Your task to perform on an android device: turn off data saver in the chrome app Image 0: 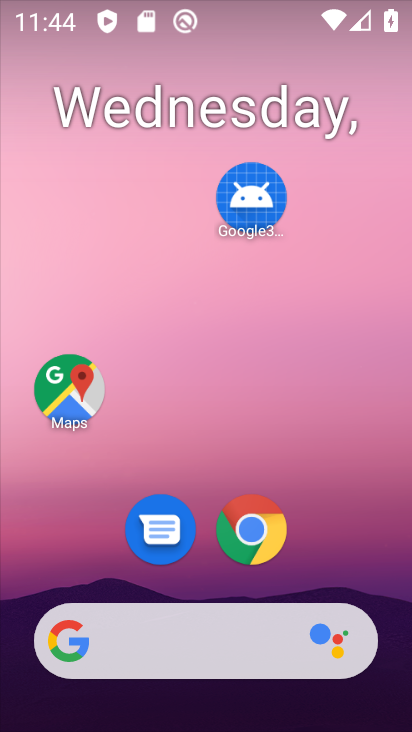
Step 0: click (236, 526)
Your task to perform on an android device: turn off data saver in the chrome app Image 1: 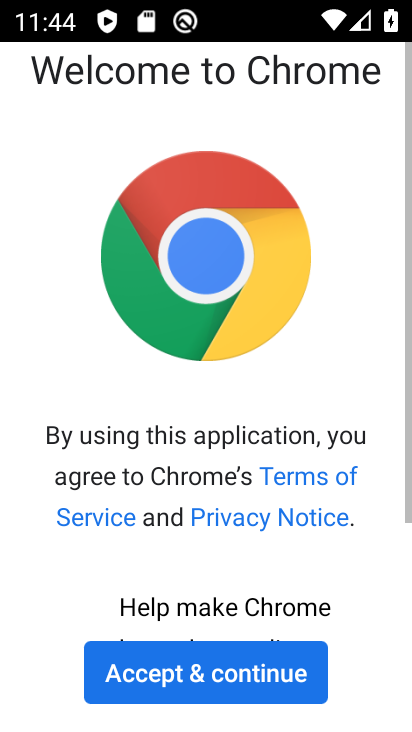
Step 1: click (263, 683)
Your task to perform on an android device: turn off data saver in the chrome app Image 2: 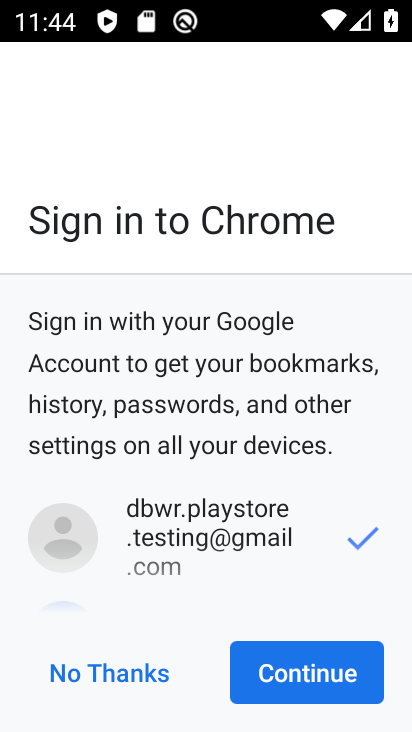
Step 2: click (297, 695)
Your task to perform on an android device: turn off data saver in the chrome app Image 3: 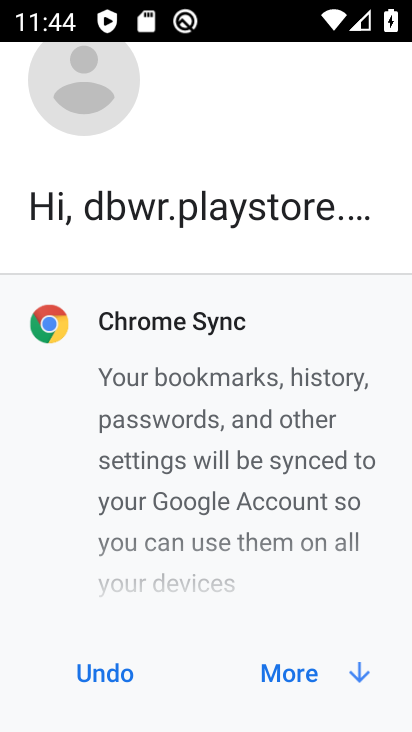
Step 3: click (294, 690)
Your task to perform on an android device: turn off data saver in the chrome app Image 4: 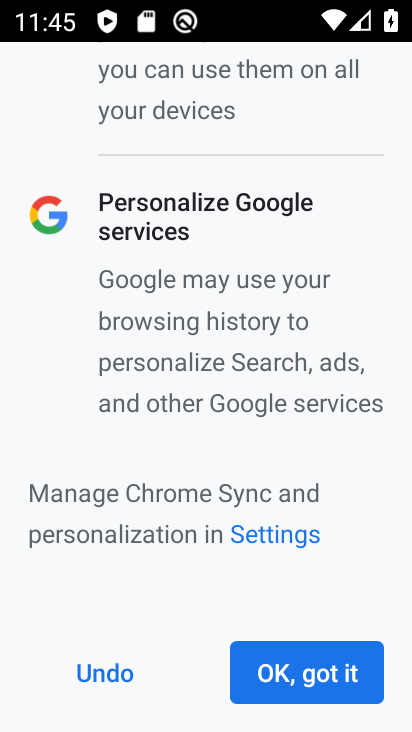
Step 4: click (310, 669)
Your task to perform on an android device: turn off data saver in the chrome app Image 5: 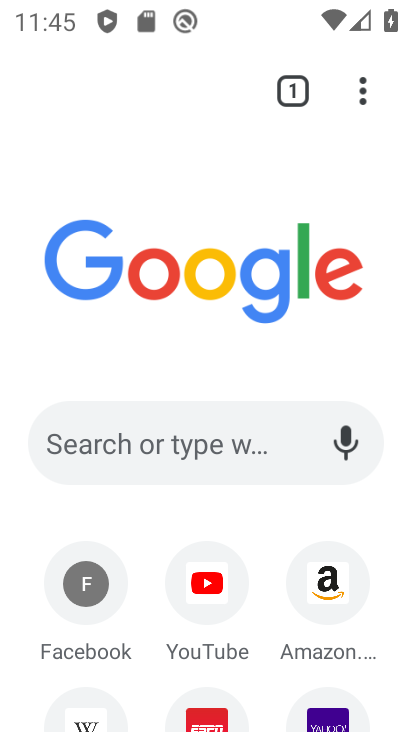
Step 5: drag from (379, 100) to (288, 550)
Your task to perform on an android device: turn off data saver in the chrome app Image 6: 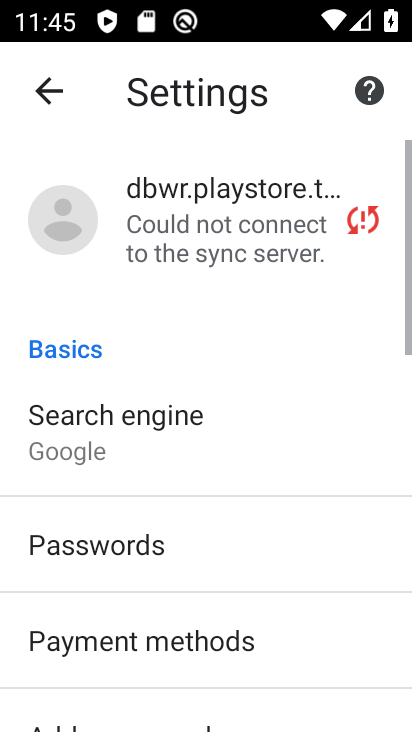
Step 6: drag from (193, 578) to (350, 200)
Your task to perform on an android device: turn off data saver in the chrome app Image 7: 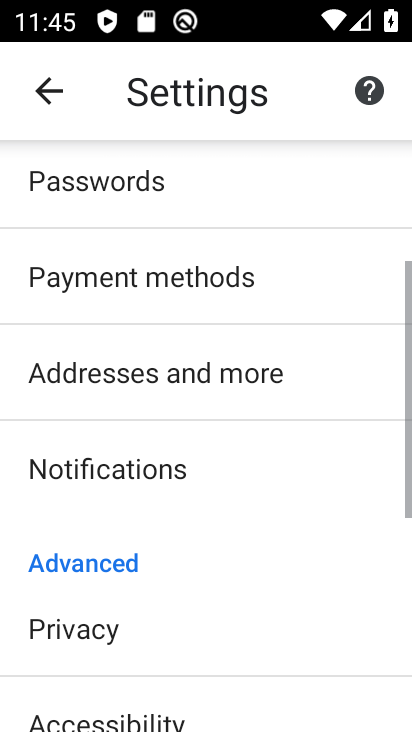
Step 7: drag from (225, 632) to (340, 203)
Your task to perform on an android device: turn off data saver in the chrome app Image 8: 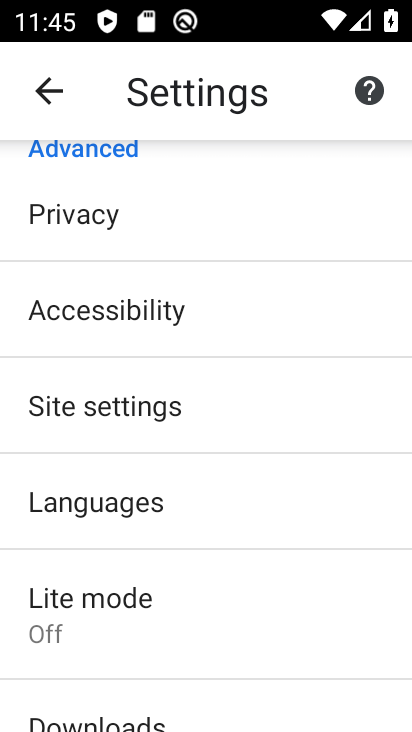
Step 8: click (107, 619)
Your task to perform on an android device: turn off data saver in the chrome app Image 9: 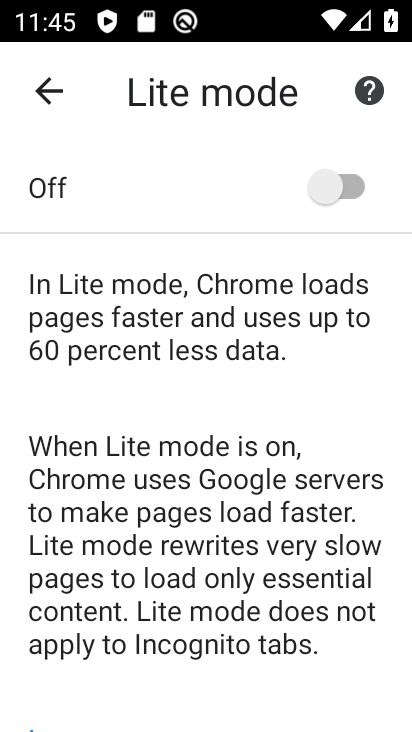
Step 9: task complete